Your task to perform on an android device: Do I have any events tomorrow? Image 0: 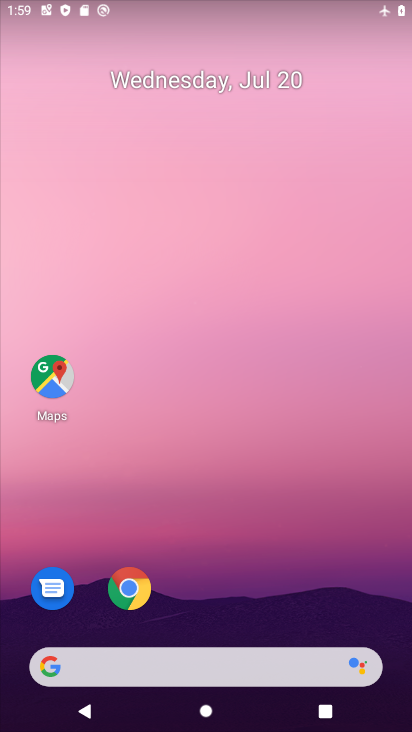
Step 0: drag from (301, 569) to (300, 4)
Your task to perform on an android device: Do I have any events tomorrow? Image 1: 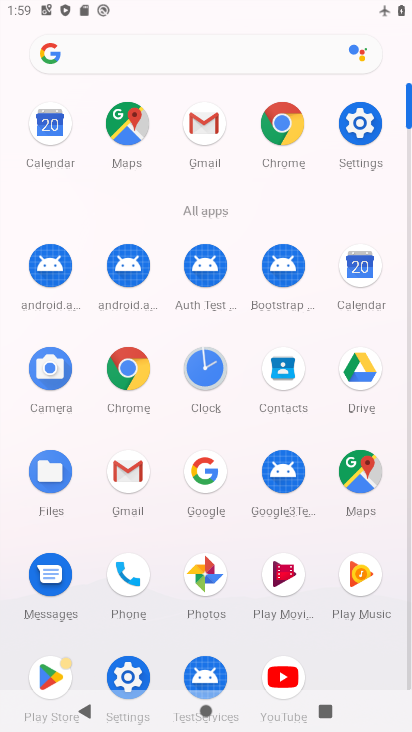
Step 1: click (364, 264)
Your task to perform on an android device: Do I have any events tomorrow? Image 2: 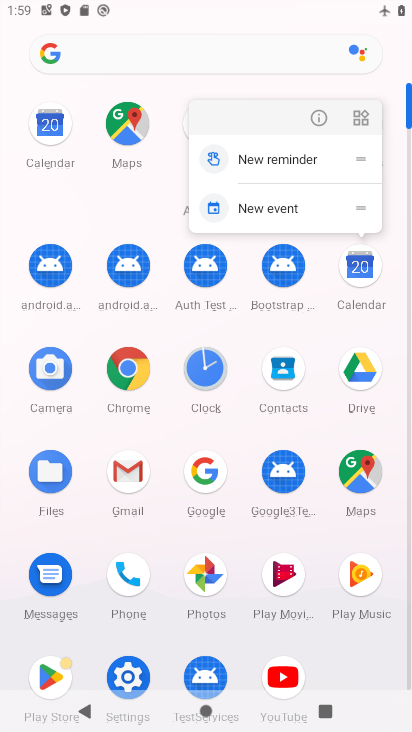
Step 2: click (364, 264)
Your task to perform on an android device: Do I have any events tomorrow? Image 3: 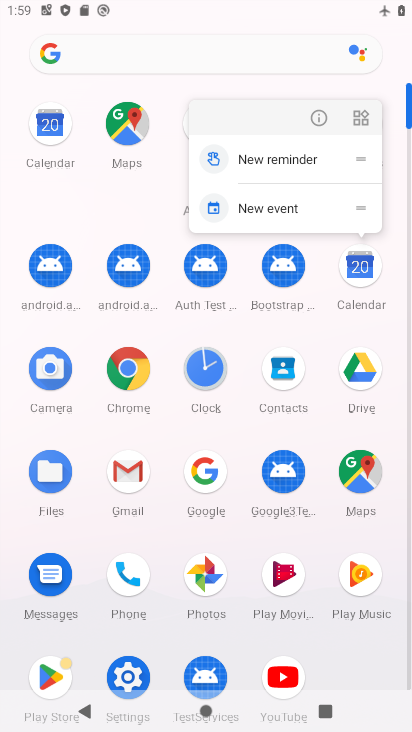
Step 3: click (364, 264)
Your task to perform on an android device: Do I have any events tomorrow? Image 4: 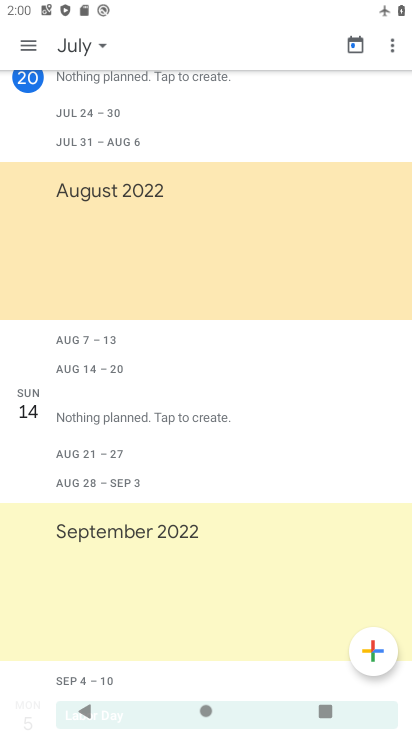
Step 4: click (86, 45)
Your task to perform on an android device: Do I have any events tomorrow? Image 5: 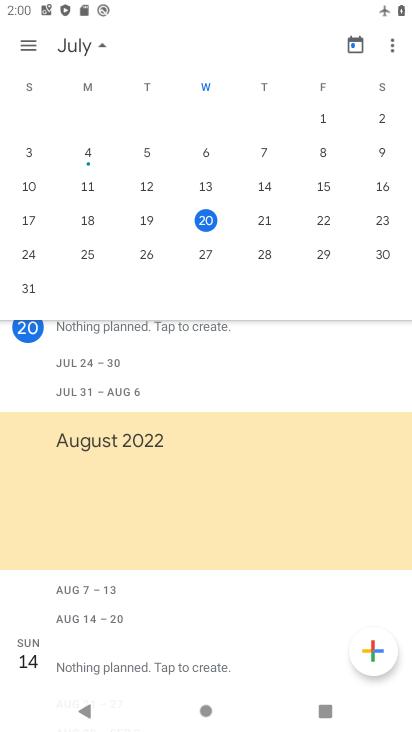
Step 5: click (271, 222)
Your task to perform on an android device: Do I have any events tomorrow? Image 6: 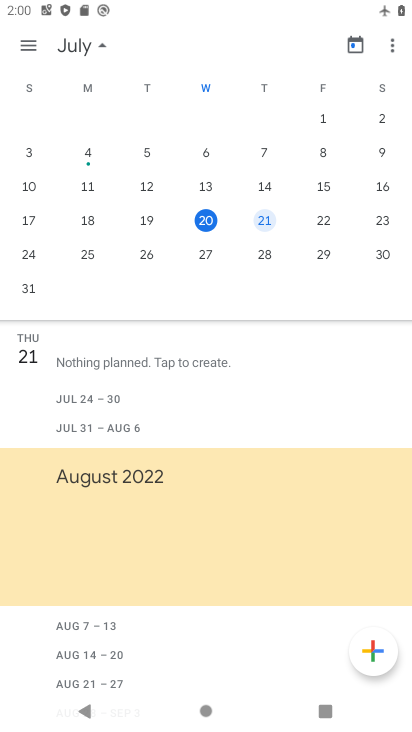
Step 6: task complete